Your task to perform on an android device: Show me recent news Image 0: 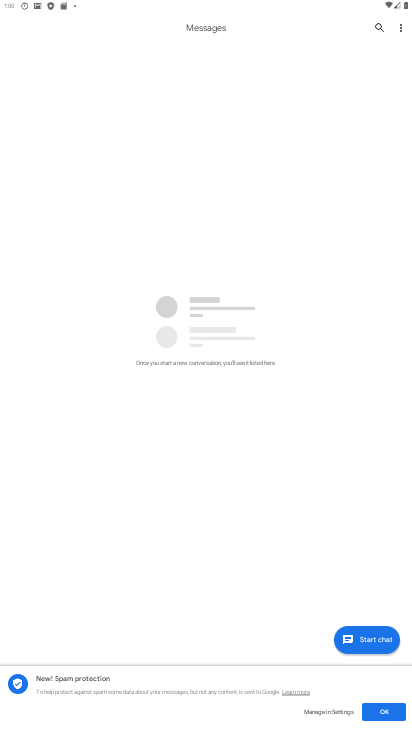
Step 0: press home button
Your task to perform on an android device: Show me recent news Image 1: 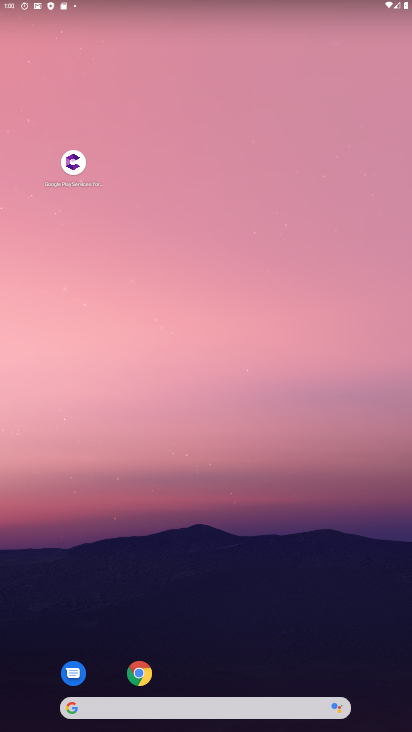
Step 1: click (221, 711)
Your task to perform on an android device: Show me recent news Image 2: 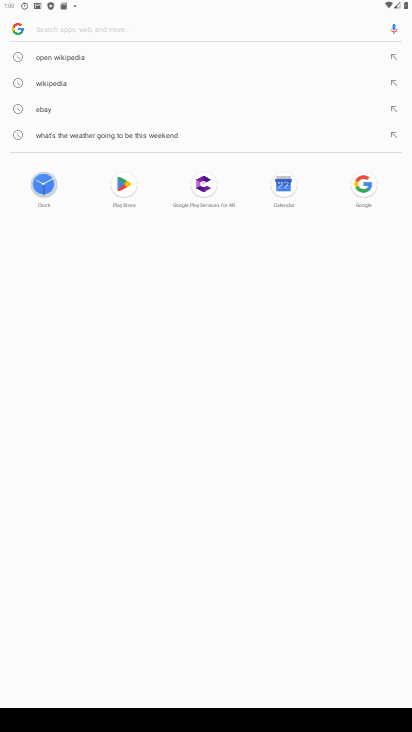
Step 2: type "recent news"
Your task to perform on an android device: Show me recent news Image 3: 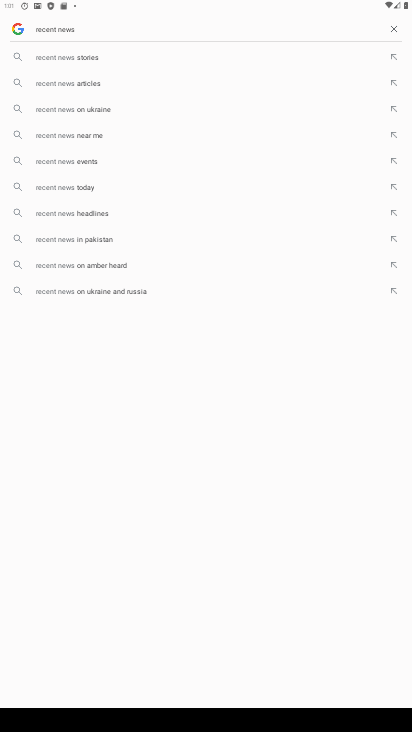
Step 3: click (82, 190)
Your task to perform on an android device: Show me recent news Image 4: 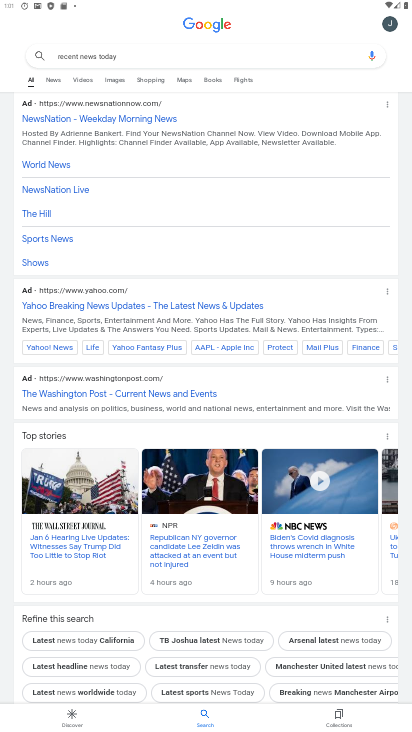
Step 4: click (55, 75)
Your task to perform on an android device: Show me recent news Image 5: 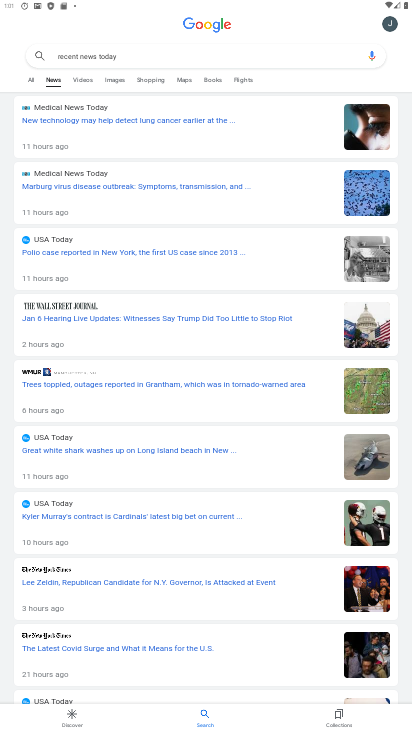
Step 5: task complete